Your task to perform on an android device: delete browsing data in the chrome app Image 0: 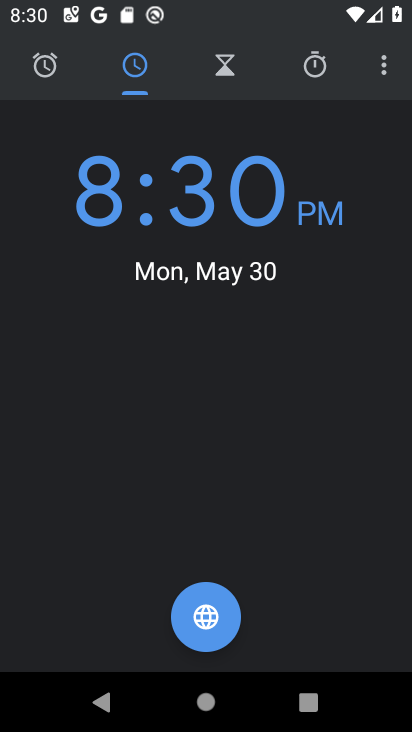
Step 0: press home button
Your task to perform on an android device: delete browsing data in the chrome app Image 1: 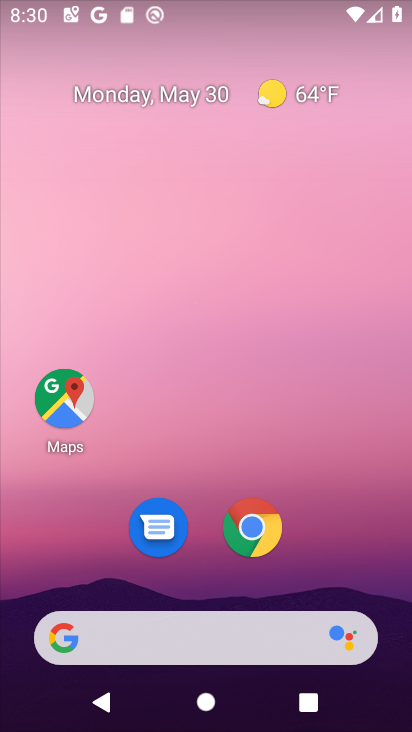
Step 1: click (259, 525)
Your task to perform on an android device: delete browsing data in the chrome app Image 2: 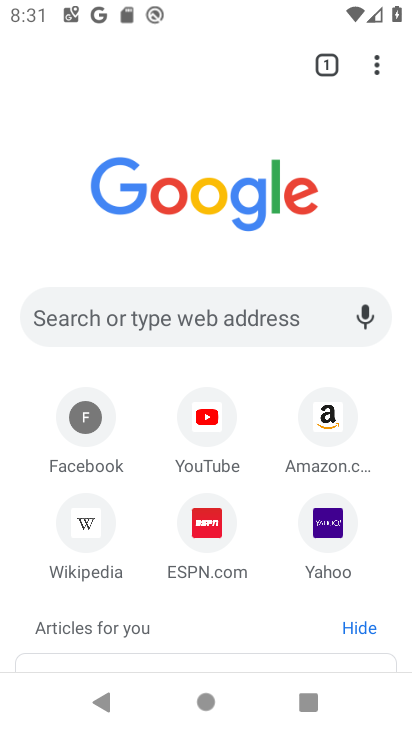
Step 2: click (378, 61)
Your task to perform on an android device: delete browsing data in the chrome app Image 3: 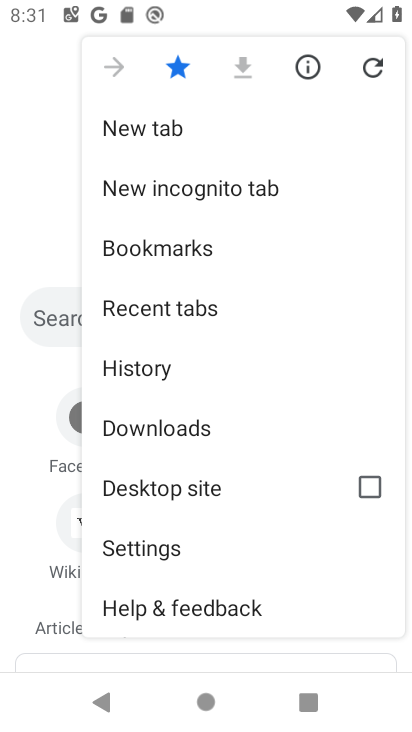
Step 3: click (190, 541)
Your task to perform on an android device: delete browsing data in the chrome app Image 4: 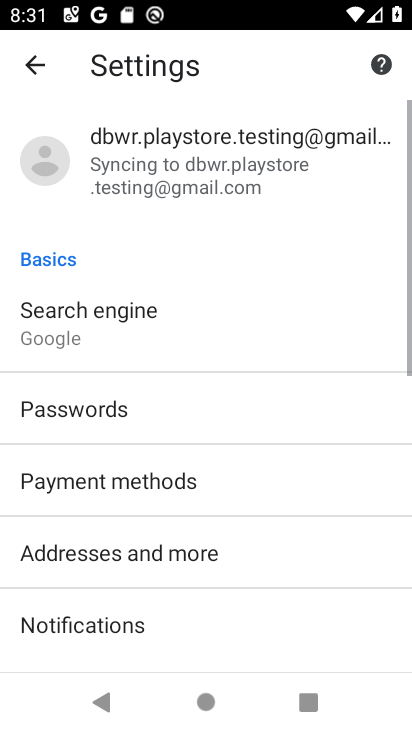
Step 4: drag from (198, 599) to (244, 276)
Your task to perform on an android device: delete browsing data in the chrome app Image 5: 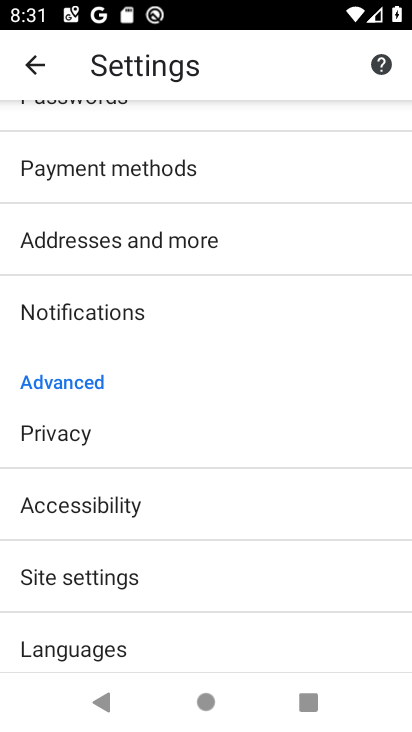
Step 5: click (101, 444)
Your task to perform on an android device: delete browsing data in the chrome app Image 6: 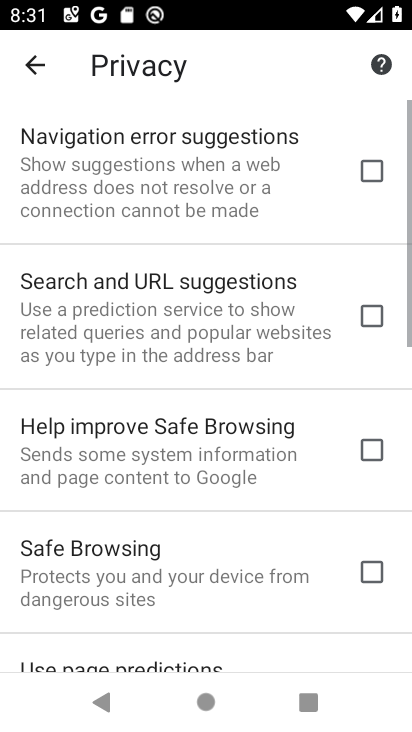
Step 6: drag from (206, 639) to (198, 170)
Your task to perform on an android device: delete browsing data in the chrome app Image 7: 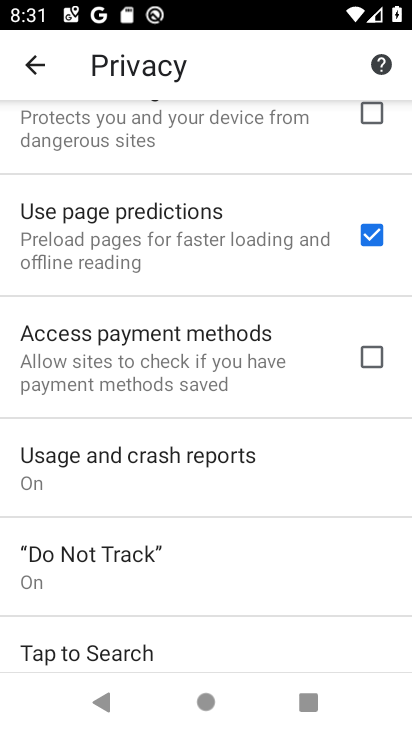
Step 7: drag from (208, 560) to (246, 146)
Your task to perform on an android device: delete browsing data in the chrome app Image 8: 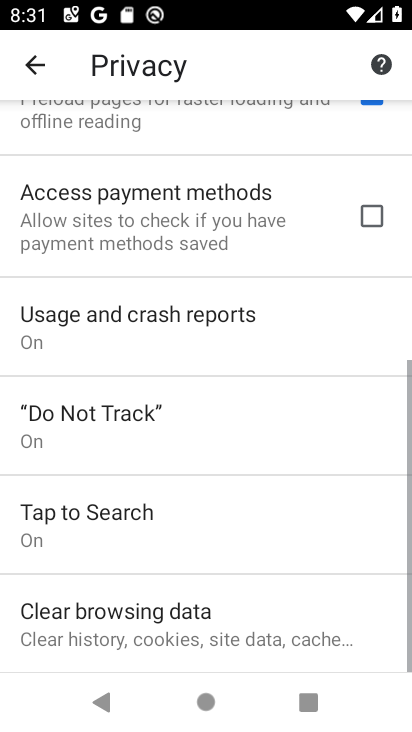
Step 8: click (208, 622)
Your task to perform on an android device: delete browsing data in the chrome app Image 9: 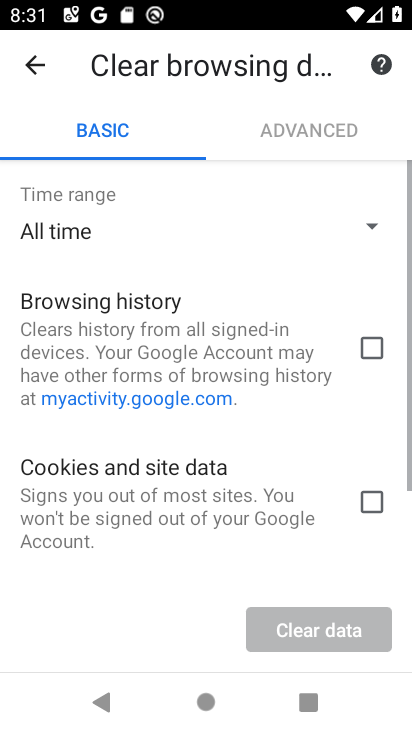
Step 9: drag from (203, 536) to (234, 198)
Your task to perform on an android device: delete browsing data in the chrome app Image 10: 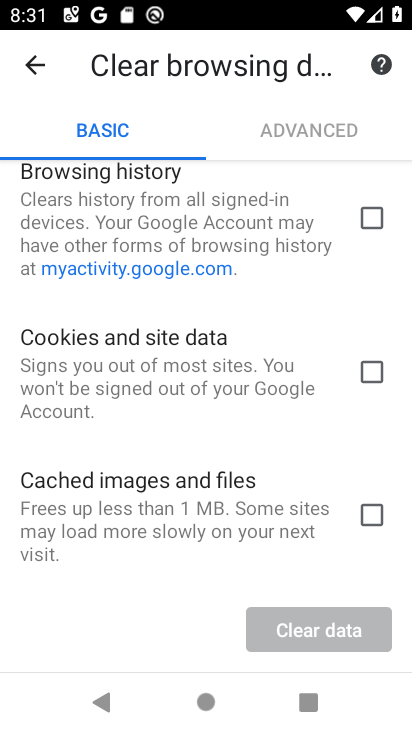
Step 10: click (364, 214)
Your task to perform on an android device: delete browsing data in the chrome app Image 11: 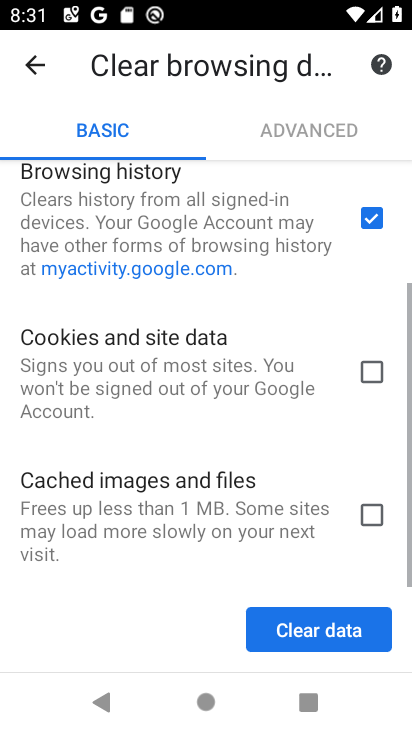
Step 11: click (377, 369)
Your task to perform on an android device: delete browsing data in the chrome app Image 12: 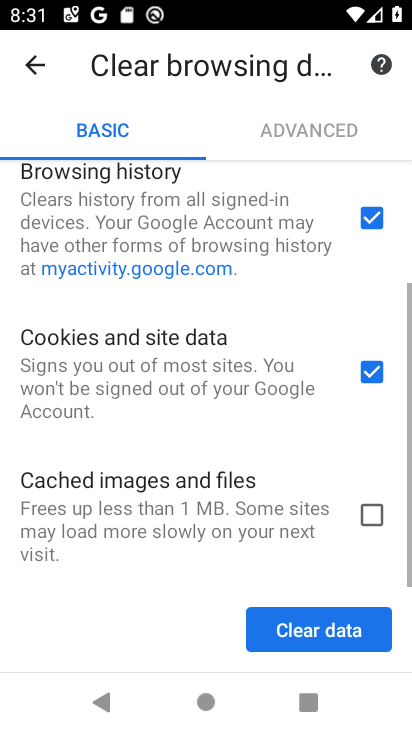
Step 12: click (380, 511)
Your task to perform on an android device: delete browsing data in the chrome app Image 13: 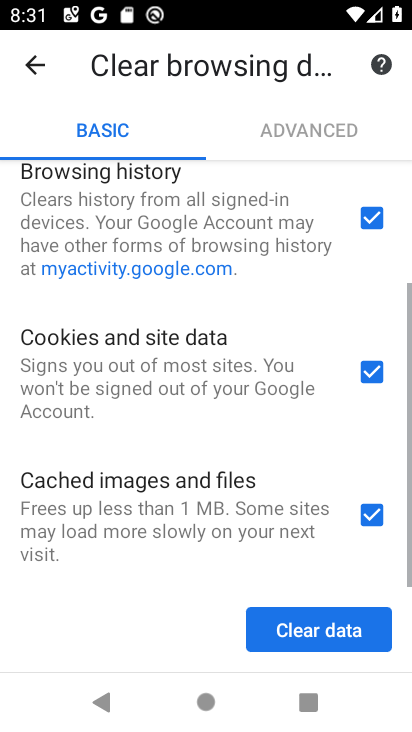
Step 13: drag from (248, 492) to (286, 255)
Your task to perform on an android device: delete browsing data in the chrome app Image 14: 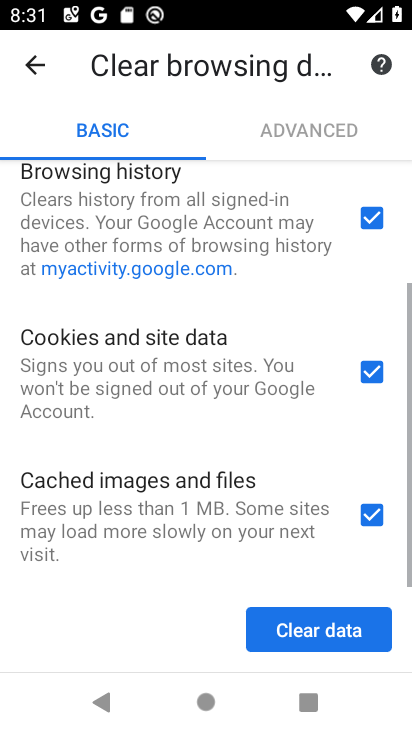
Step 14: click (304, 628)
Your task to perform on an android device: delete browsing data in the chrome app Image 15: 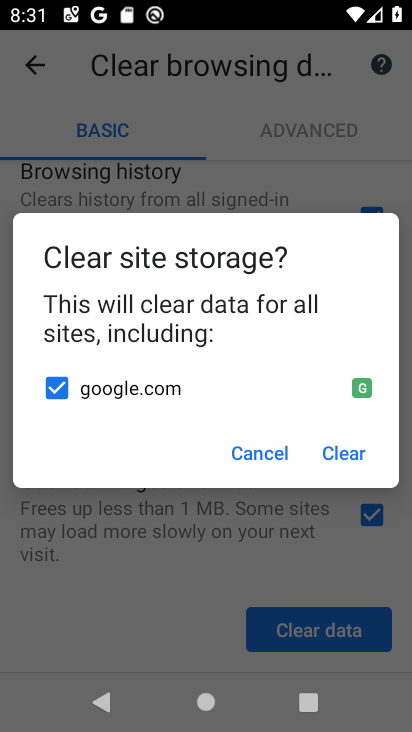
Step 15: click (339, 447)
Your task to perform on an android device: delete browsing data in the chrome app Image 16: 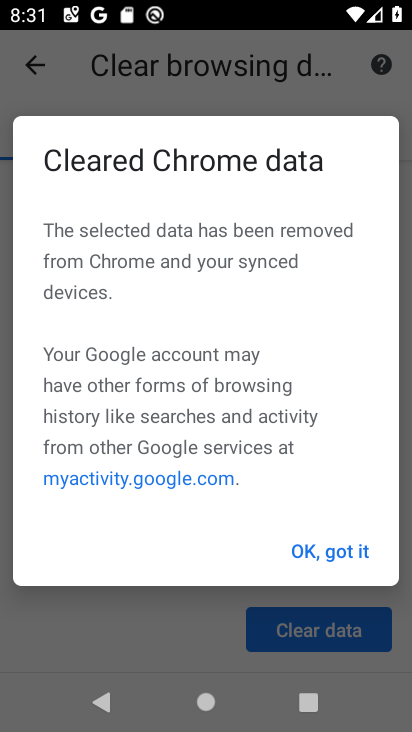
Step 16: click (343, 558)
Your task to perform on an android device: delete browsing data in the chrome app Image 17: 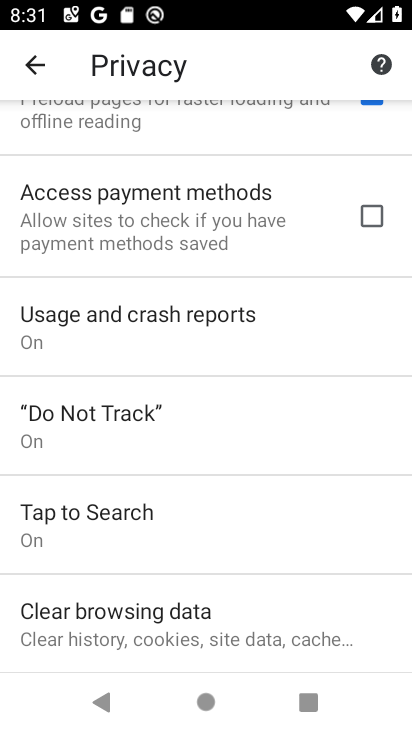
Step 17: task complete